Your task to perform on an android device: Open eBay Image 0: 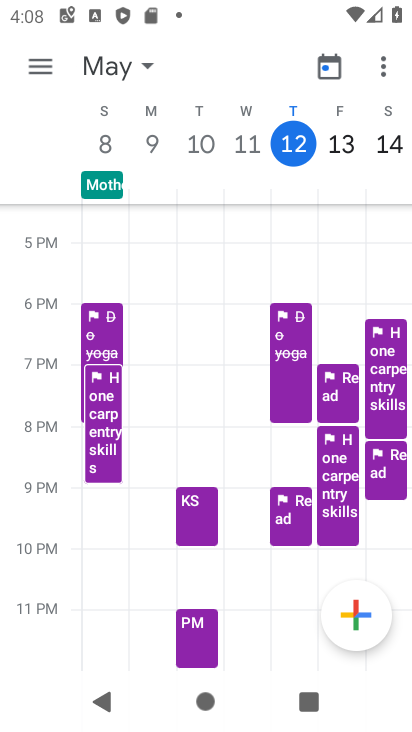
Step 0: press home button
Your task to perform on an android device: Open eBay Image 1: 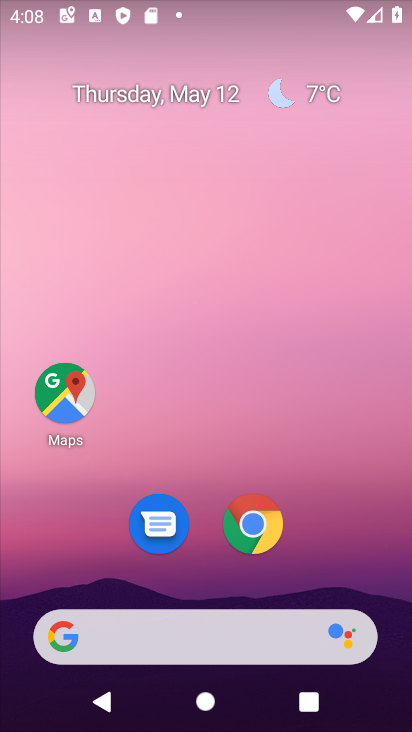
Step 1: click (185, 631)
Your task to perform on an android device: Open eBay Image 2: 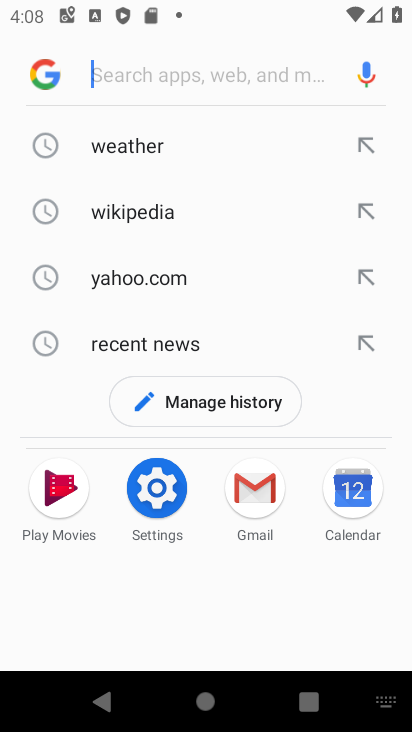
Step 2: type "ebay"
Your task to perform on an android device: Open eBay Image 3: 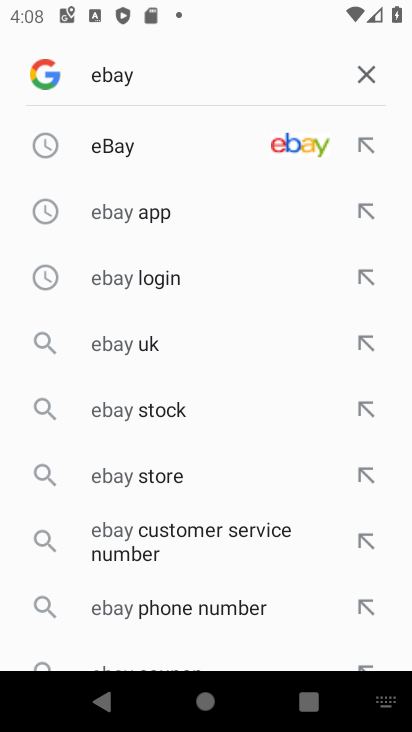
Step 3: click (135, 149)
Your task to perform on an android device: Open eBay Image 4: 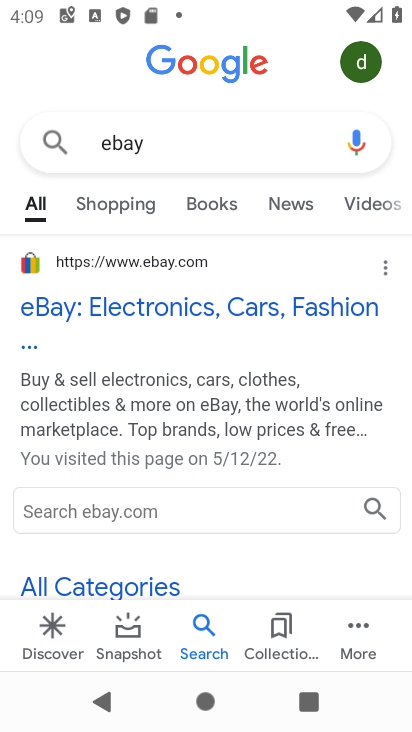
Step 4: click (90, 307)
Your task to perform on an android device: Open eBay Image 5: 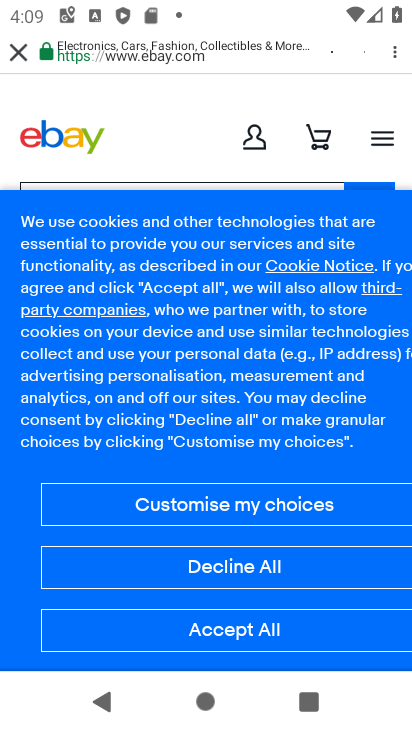
Step 5: task complete